Your task to perform on an android device: Set the phone to "Do not disturb". Image 0: 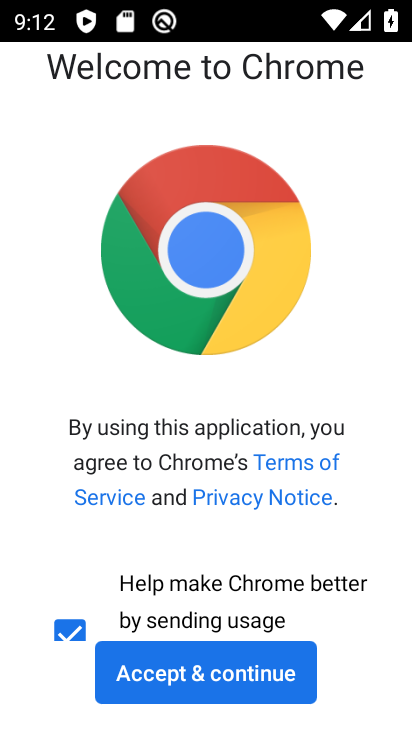
Step 0: press home button
Your task to perform on an android device: Set the phone to "Do not disturb". Image 1: 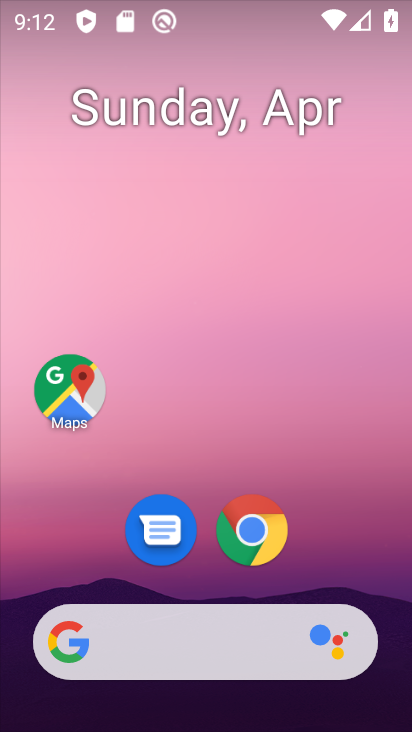
Step 1: drag from (380, 579) to (381, 14)
Your task to perform on an android device: Set the phone to "Do not disturb". Image 2: 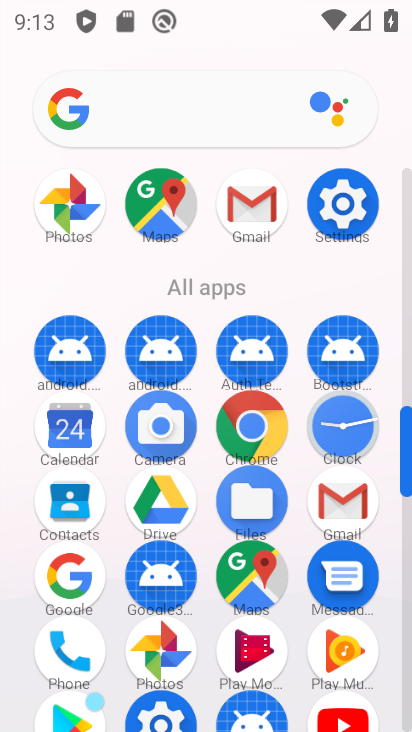
Step 2: click (341, 209)
Your task to perform on an android device: Set the phone to "Do not disturb". Image 3: 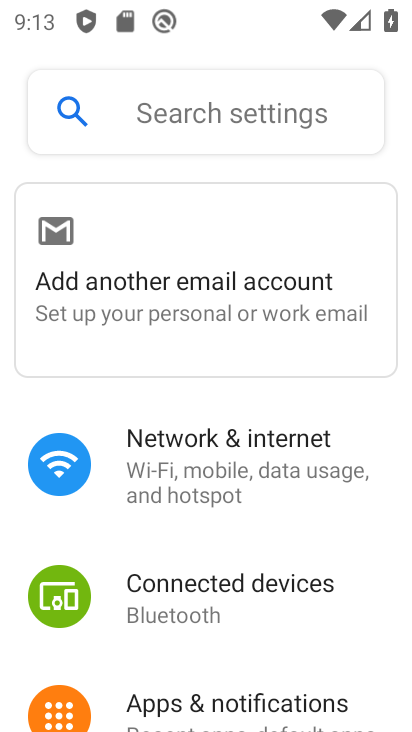
Step 3: drag from (377, 664) to (381, 187)
Your task to perform on an android device: Set the phone to "Do not disturb". Image 4: 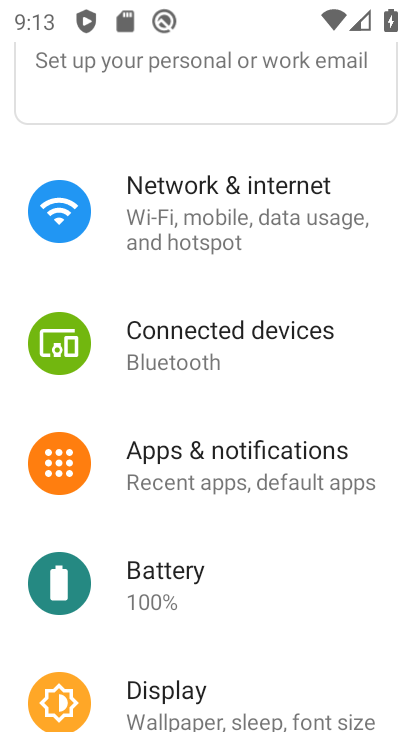
Step 4: drag from (339, 602) to (362, 144)
Your task to perform on an android device: Set the phone to "Do not disturb". Image 5: 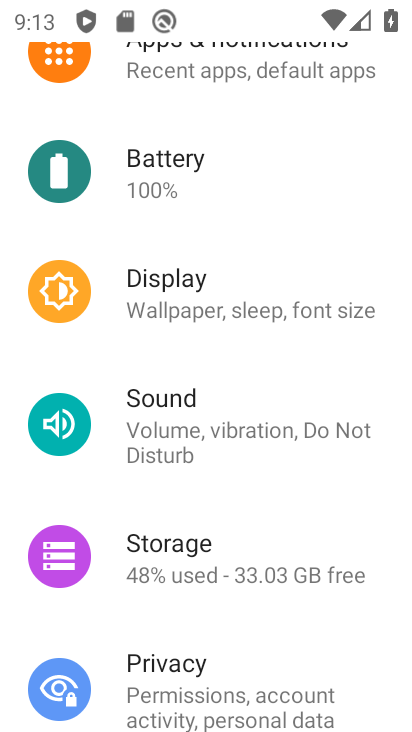
Step 5: click (150, 436)
Your task to perform on an android device: Set the phone to "Do not disturb". Image 6: 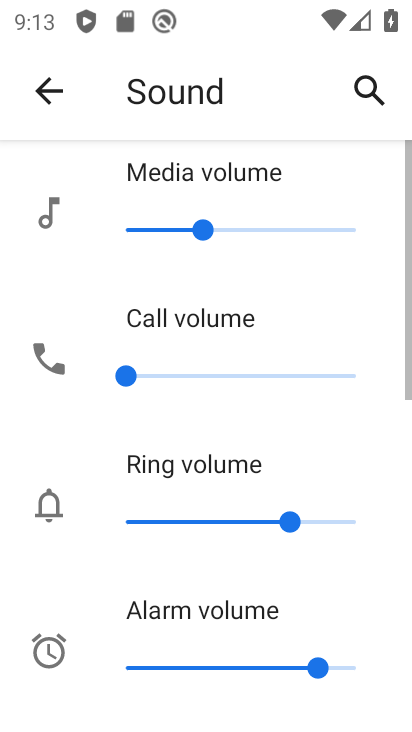
Step 6: drag from (379, 642) to (382, 149)
Your task to perform on an android device: Set the phone to "Do not disturb". Image 7: 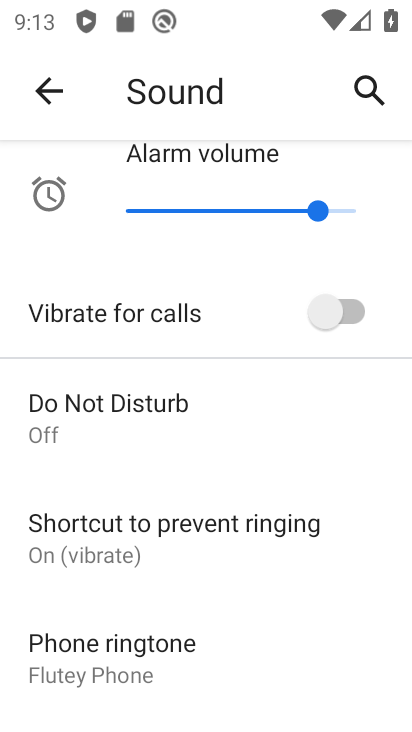
Step 7: click (78, 427)
Your task to perform on an android device: Set the phone to "Do not disturb". Image 8: 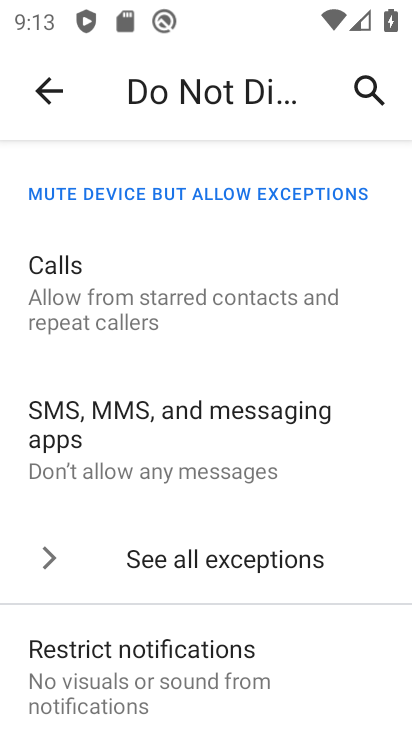
Step 8: drag from (292, 619) to (252, 203)
Your task to perform on an android device: Set the phone to "Do not disturb". Image 9: 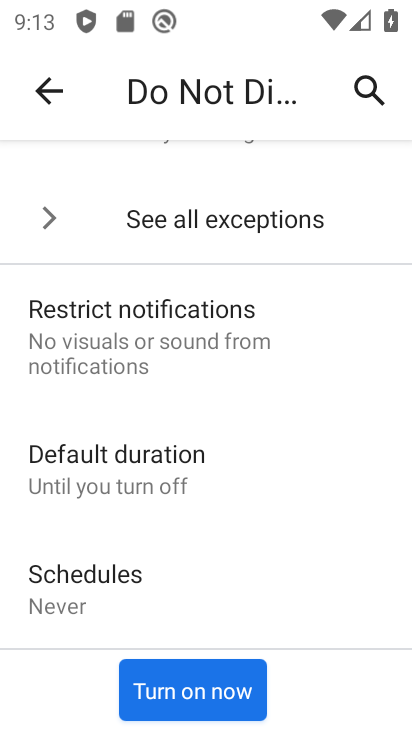
Step 9: drag from (311, 551) to (274, 208)
Your task to perform on an android device: Set the phone to "Do not disturb". Image 10: 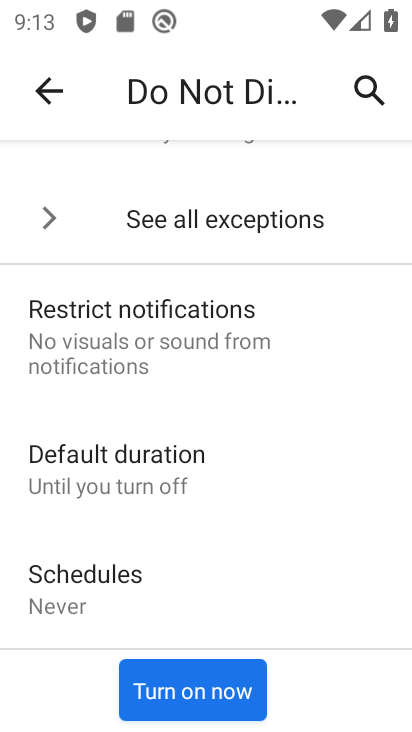
Step 10: click (180, 682)
Your task to perform on an android device: Set the phone to "Do not disturb". Image 11: 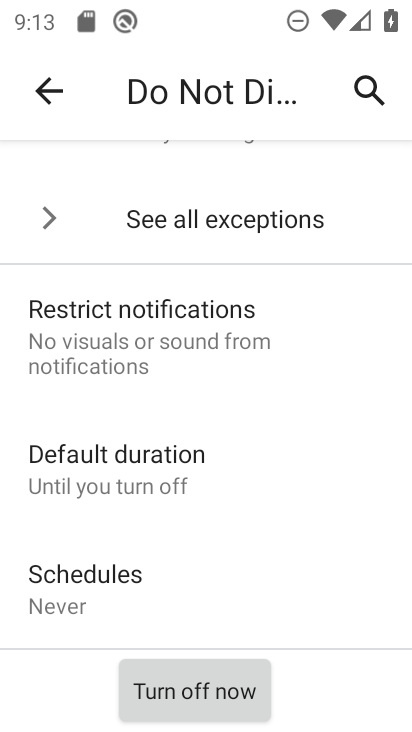
Step 11: task complete